Your task to perform on an android device: Open my contact list Image 0: 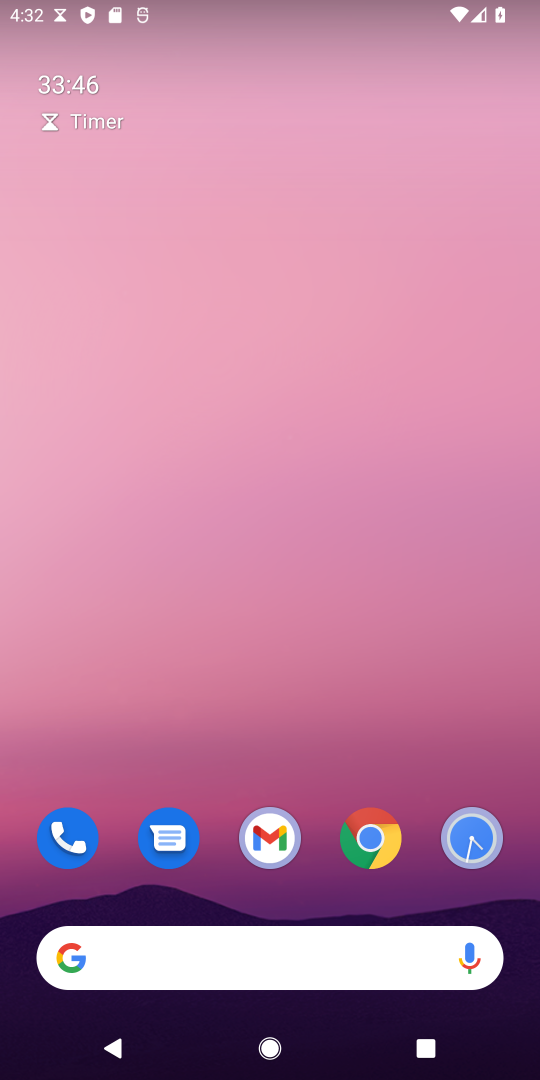
Step 0: drag from (297, 783) to (283, 131)
Your task to perform on an android device: Open my contact list Image 1: 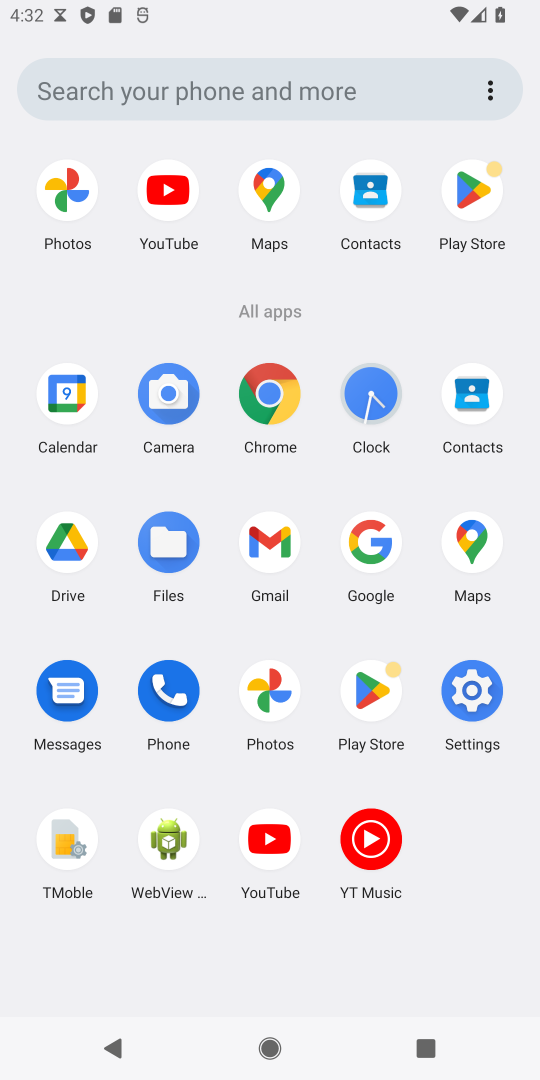
Step 1: click (470, 416)
Your task to perform on an android device: Open my contact list Image 2: 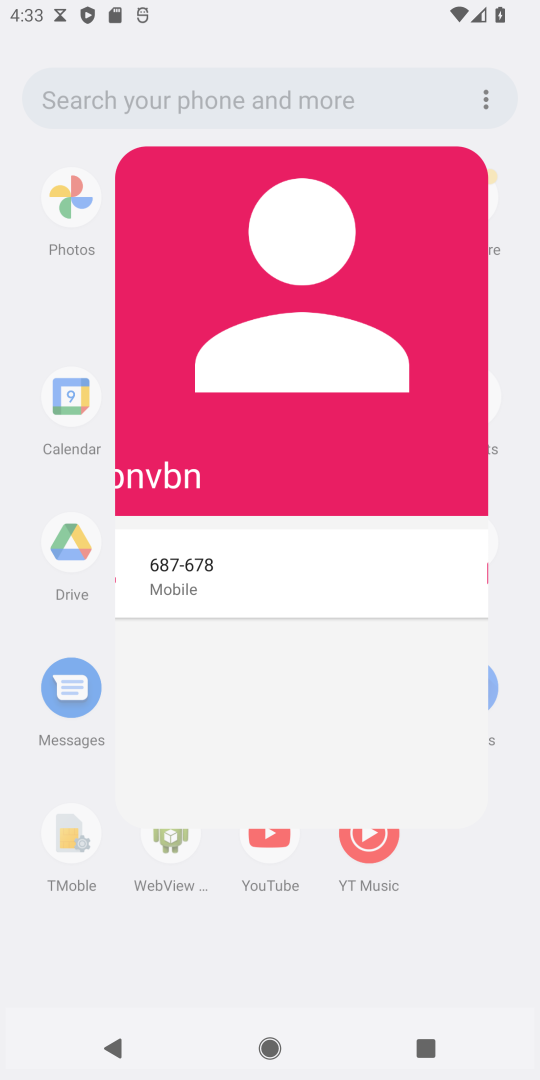
Step 2: click (473, 403)
Your task to perform on an android device: Open my contact list Image 3: 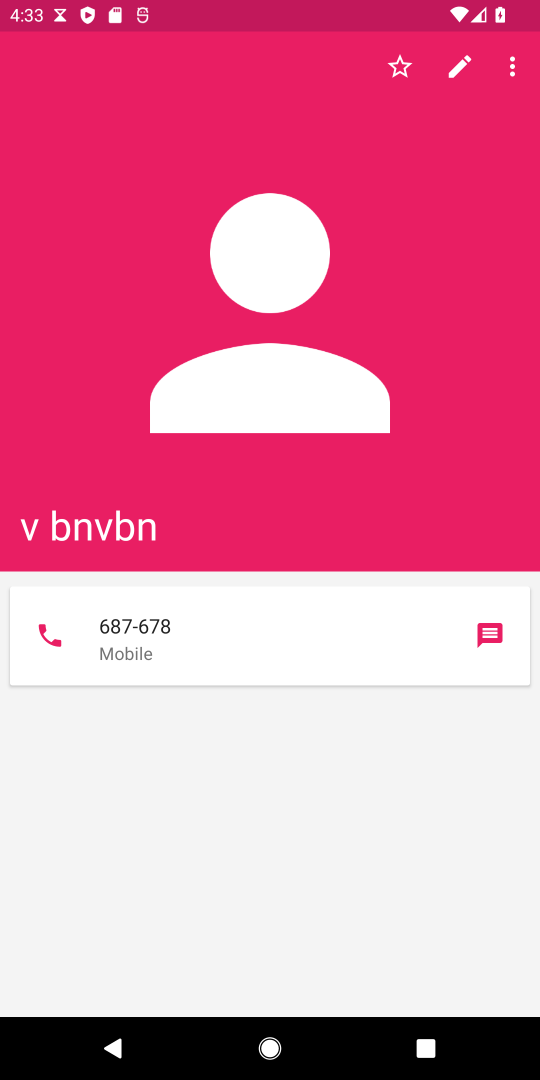
Step 3: task complete